Your task to perform on an android device: Add energizer triple a to the cart on bestbuy.com, then select checkout. Image 0: 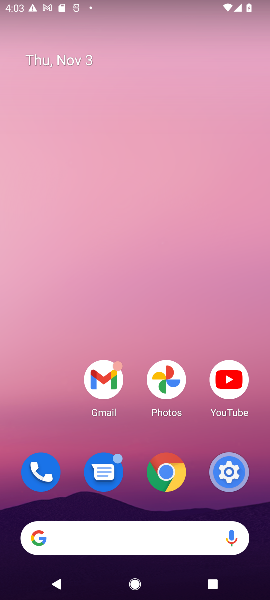
Step 0: click (127, 535)
Your task to perform on an android device: Add energizer triple a to the cart on bestbuy.com, then select checkout. Image 1: 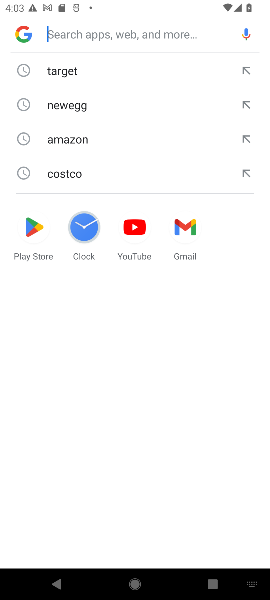
Step 1: type "bestbuy"
Your task to perform on an android device: Add energizer triple a to the cart on bestbuy.com, then select checkout. Image 2: 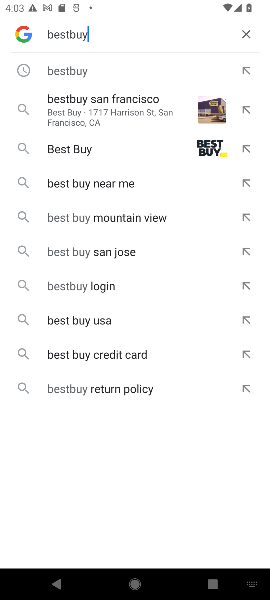
Step 2: click (92, 153)
Your task to perform on an android device: Add energizer triple a to the cart on bestbuy.com, then select checkout. Image 3: 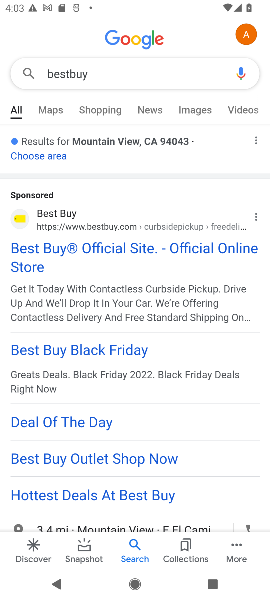
Step 3: click (95, 253)
Your task to perform on an android device: Add energizer triple a to the cart on bestbuy.com, then select checkout. Image 4: 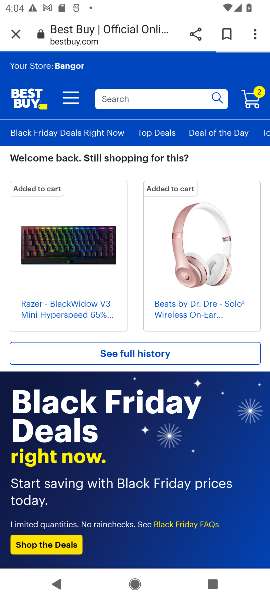
Step 4: click (157, 108)
Your task to perform on an android device: Add energizer triple a to the cart on bestbuy.com, then select checkout. Image 5: 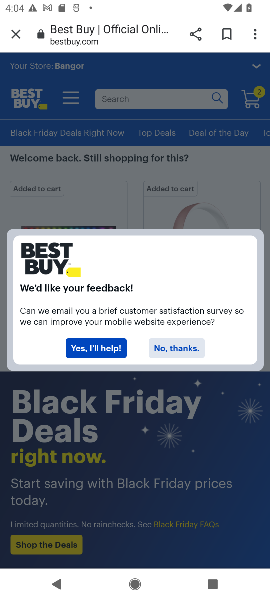
Step 5: click (167, 345)
Your task to perform on an android device: Add energizer triple a to the cart on bestbuy.com, then select checkout. Image 6: 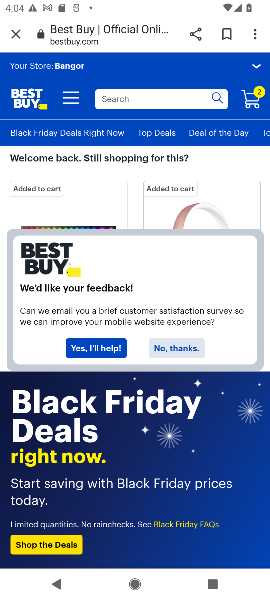
Step 6: click (134, 107)
Your task to perform on an android device: Add energizer triple a to the cart on bestbuy.com, then select checkout. Image 7: 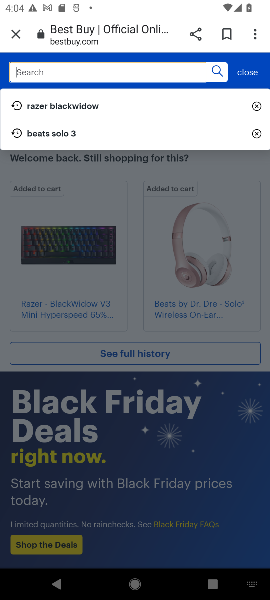
Step 7: type "energizer"
Your task to perform on an android device: Add energizer triple a to the cart on bestbuy.com, then select checkout. Image 8: 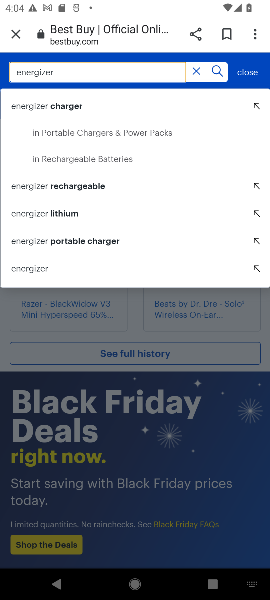
Step 8: click (68, 103)
Your task to perform on an android device: Add energizer triple a to the cart on bestbuy.com, then select checkout. Image 9: 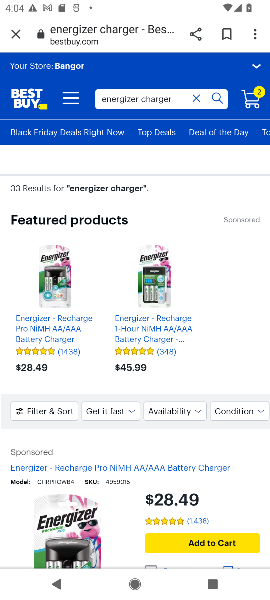
Step 9: click (165, 536)
Your task to perform on an android device: Add energizer triple a to the cart on bestbuy.com, then select checkout. Image 10: 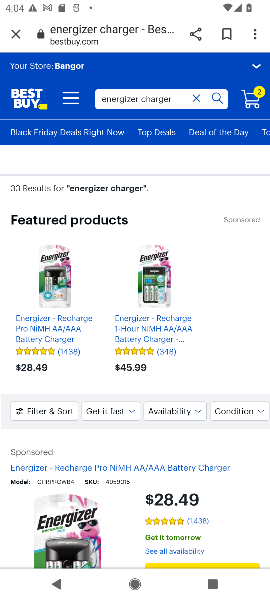
Step 10: task complete